Your task to perform on an android device: add a contact in the contacts app Image 0: 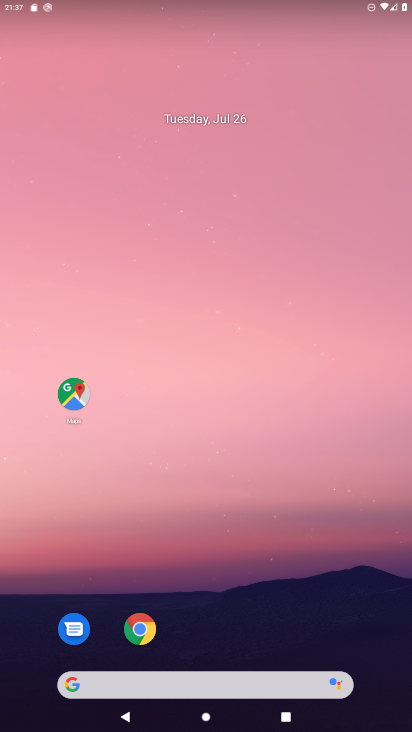
Step 0: drag from (237, 594) to (307, 8)
Your task to perform on an android device: add a contact in the contacts app Image 1: 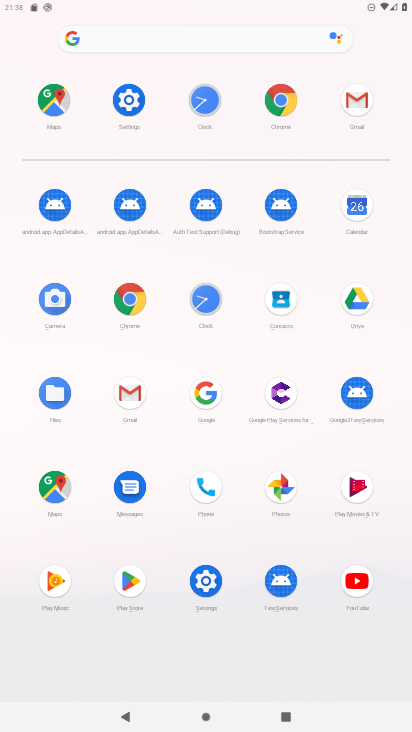
Step 1: click (268, 284)
Your task to perform on an android device: add a contact in the contacts app Image 2: 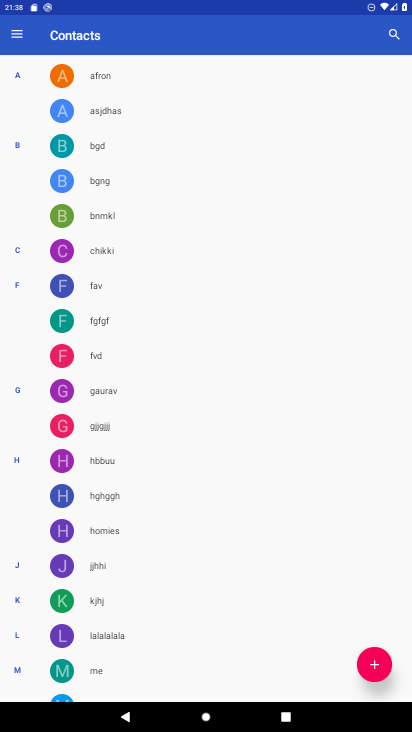
Step 2: click (379, 651)
Your task to perform on an android device: add a contact in the contacts app Image 3: 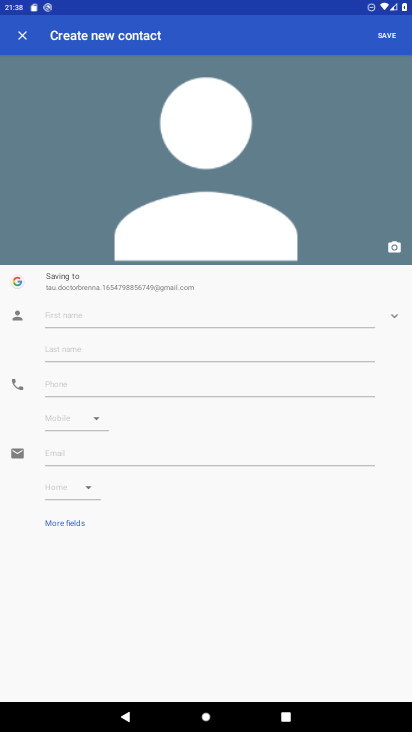
Step 3: click (206, 316)
Your task to perform on an android device: add a contact in the contacts app Image 4: 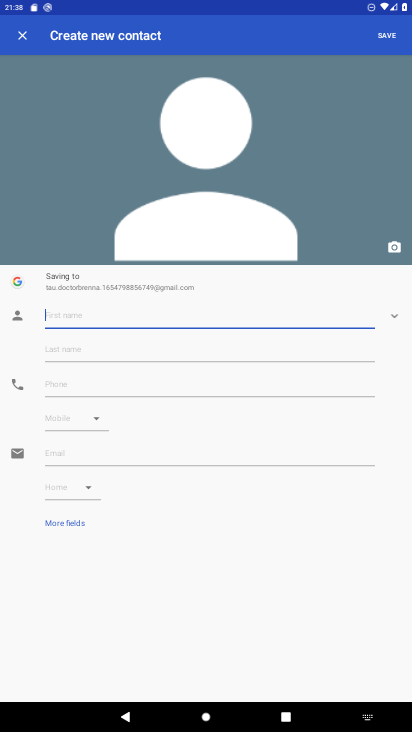
Step 4: type "vvddg"
Your task to perform on an android device: add a contact in the contacts app Image 5: 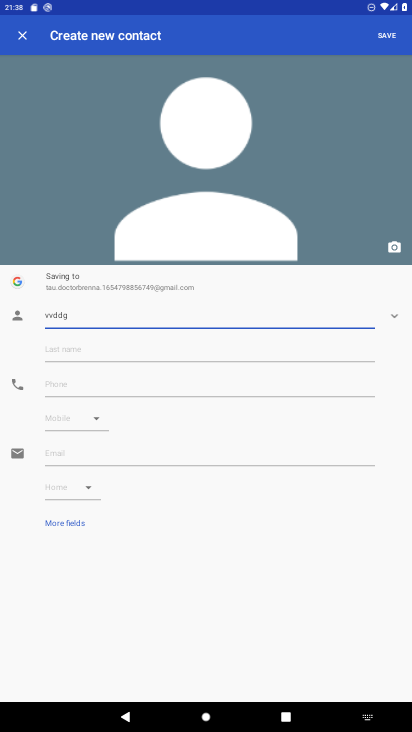
Step 5: click (135, 389)
Your task to perform on an android device: add a contact in the contacts app Image 6: 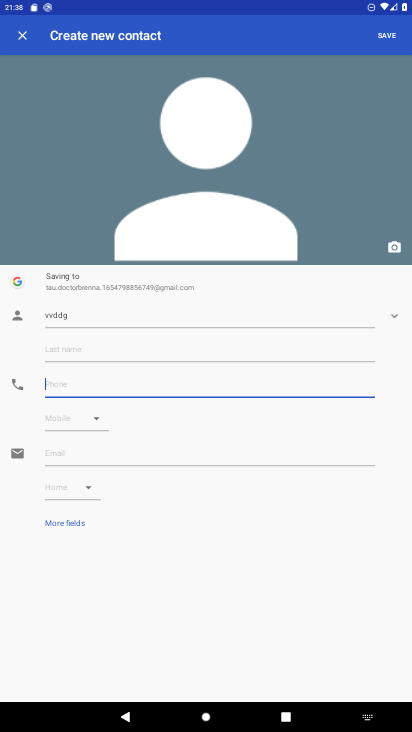
Step 6: type "66441"
Your task to perform on an android device: add a contact in the contacts app Image 7: 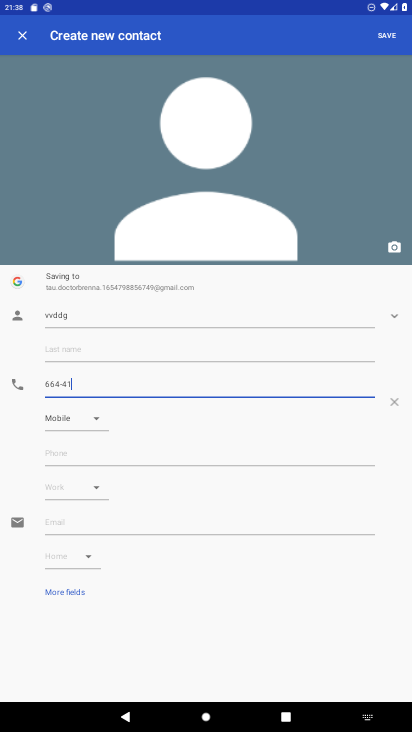
Step 7: click (387, 31)
Your task to perform on an android device: add a contact in the contacts app Image 8: 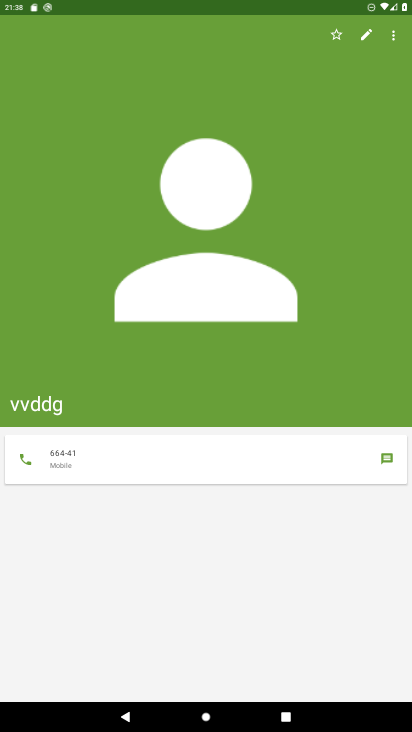
Step 8: task complete